Your task to perform on an android device: What's the weather today? Image 0: 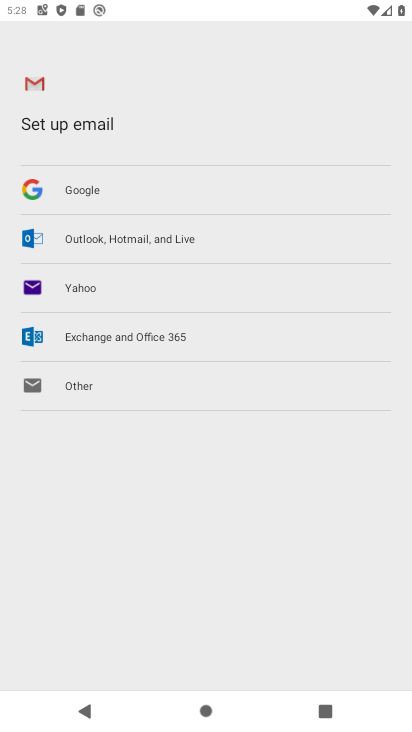
Step 0: press back button
Your task to perform on an android device: What's the weather today? Image 1: 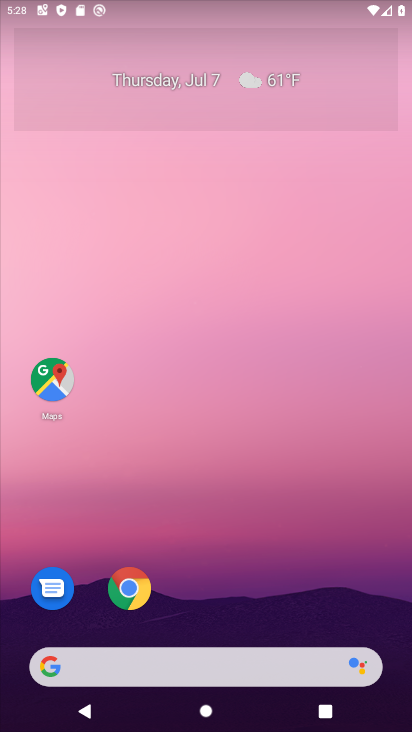
Step 1: click (261, 79)
Your task to perform on an android device: What's the weather today? Image 2: 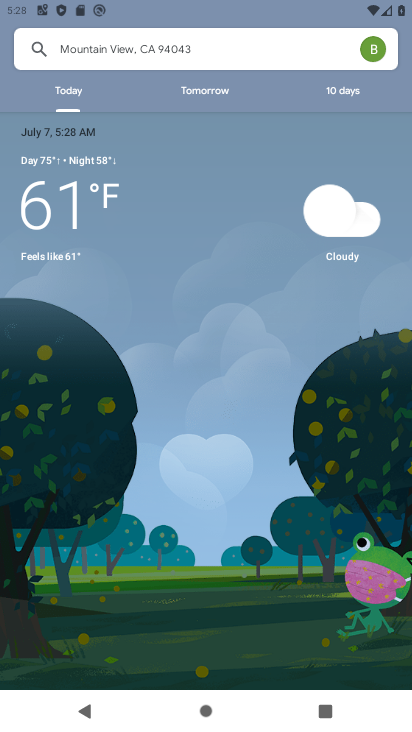
Step 2: task complete